Your task to perform on an android device: Go to Reddit.com Image 0: 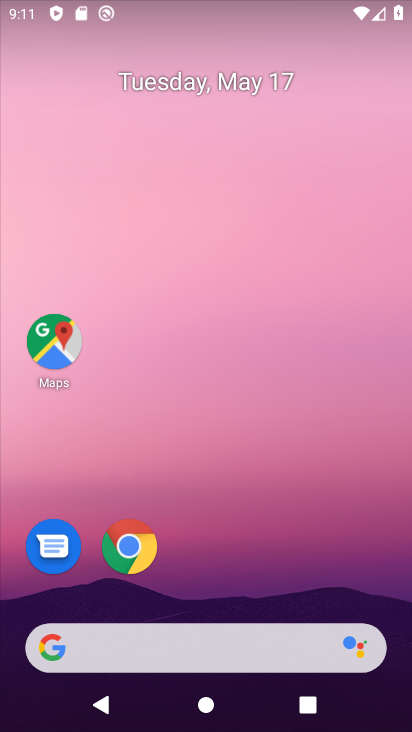
Step 0: click (127, 543)
Your task to perform on an android device: Go to Reddit.com Image 1: 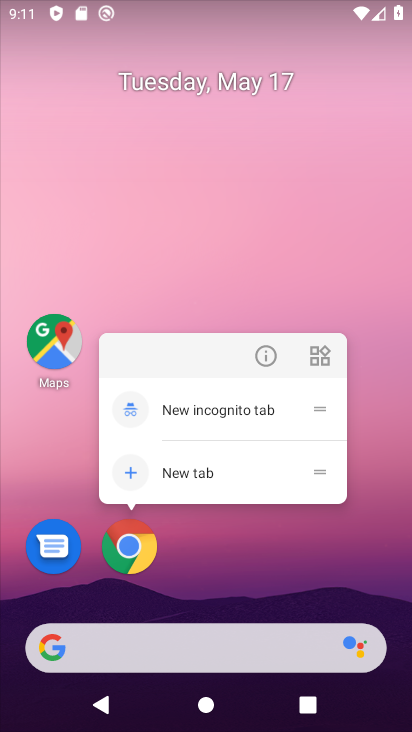
Step 1: click (131, 551)
Your task to perform on an android device: Go to Reddit.com Image 2: 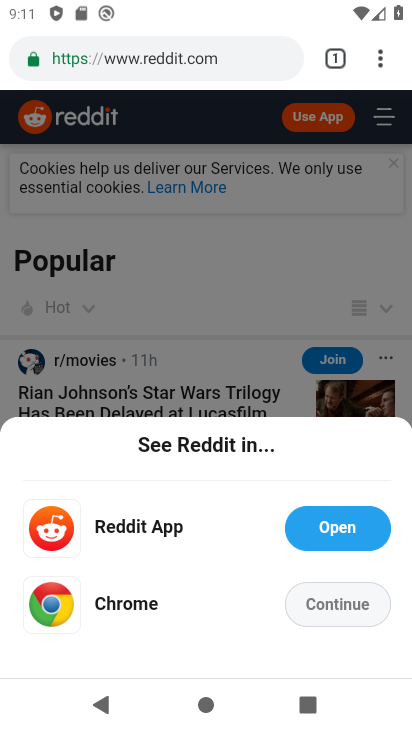
Step 2: task complete